Your task to perform on an android device: move a message to another label in the gmail app Image 0: 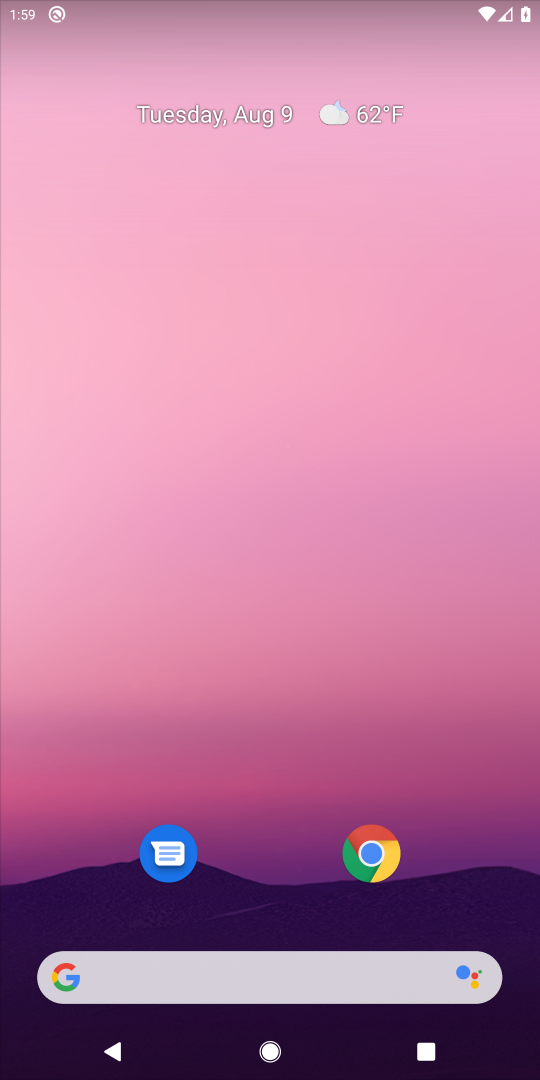
Step 0: press home button
Your task to perform on an android device: move a message to another label in the gmail app Image 1: 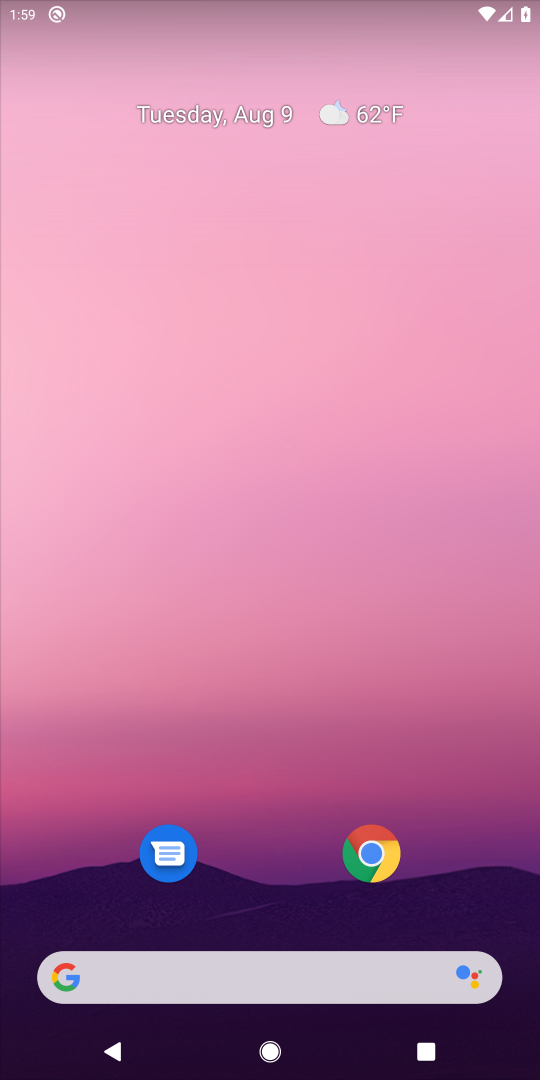
Step 1: drag from (251, 882) to (224, 181)
Your task to perform on an android device: move a message to another label in the gmail app Image 2: 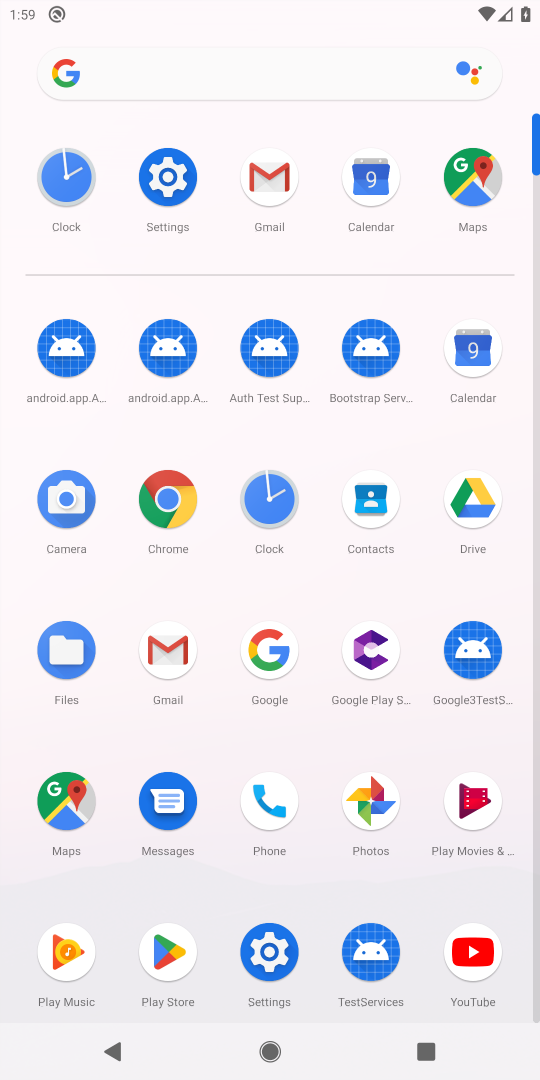
Step 2: click (267, 173)
Your task to perform on an android device: move a message to another label in the gmail app Image 3: 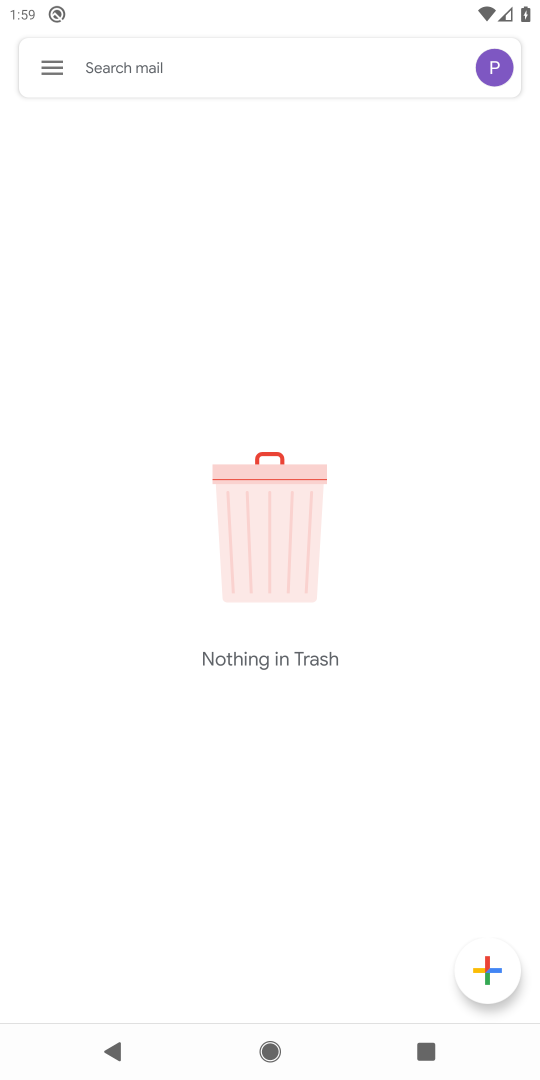
Step 3: click (60, 64)
Your task to perform on an android device: move a message to another label in the gmail app Image 4: 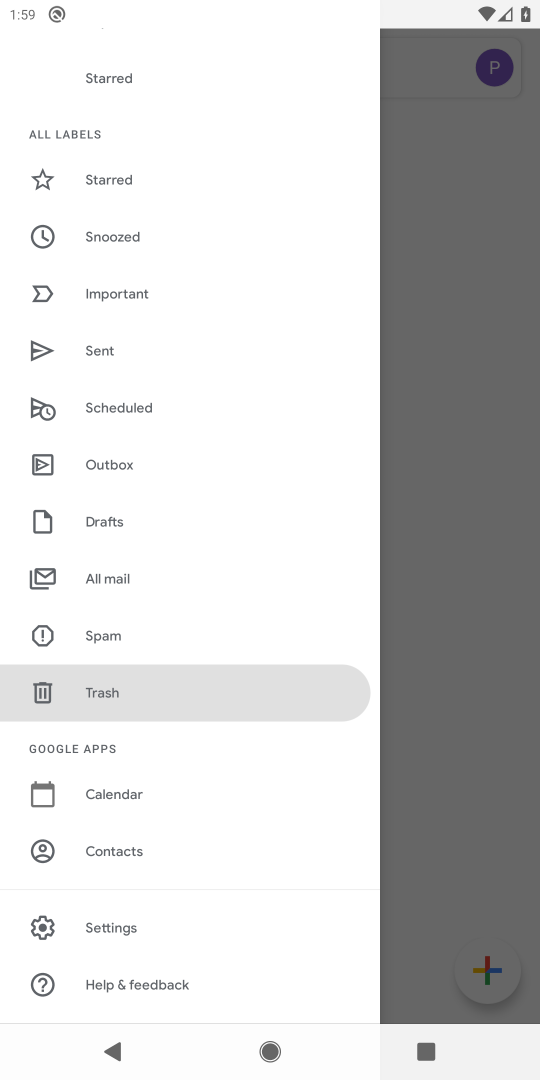
Step 4: click (108, 585)
Your task to perform on an android device: move a message to another label in the gmail app Image 5: 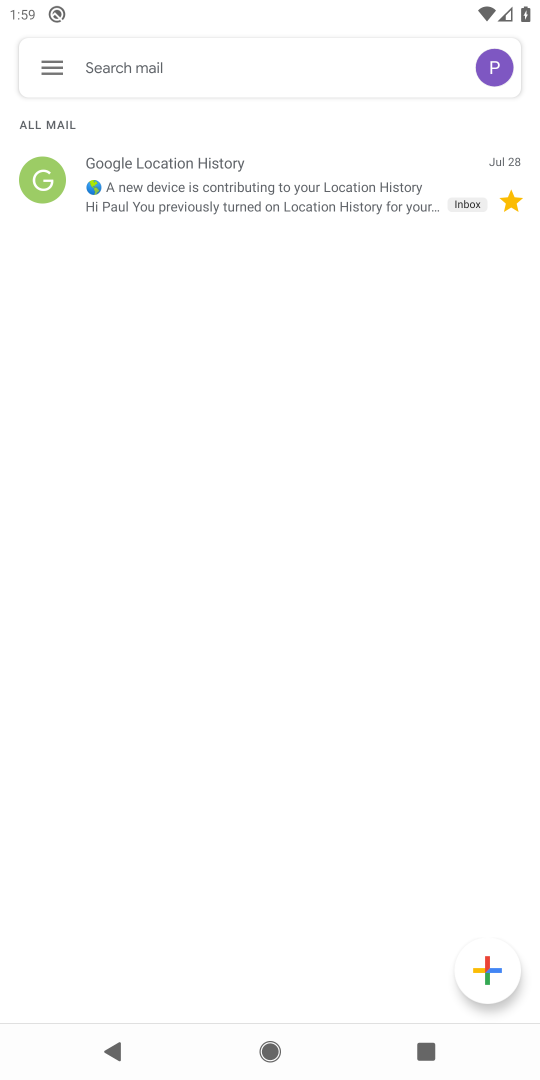
Step 5: click (410, 189)
Your task to perform on an android device: move a message to another label in the gmail app Image 6: 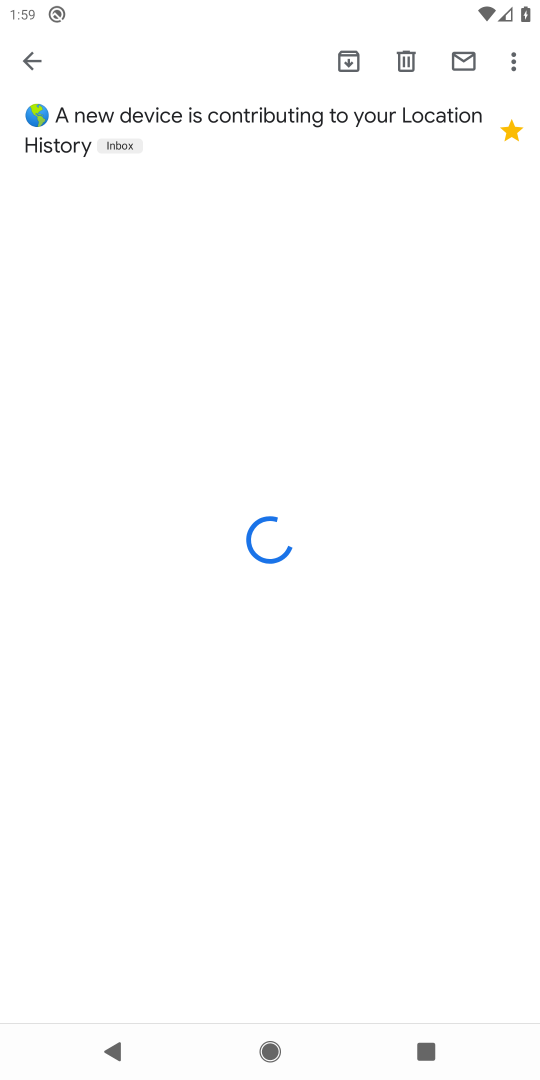
Step 6: click (521, 63)
Your task to perform on an android device: move a message to another label in the gmail app Image 7: 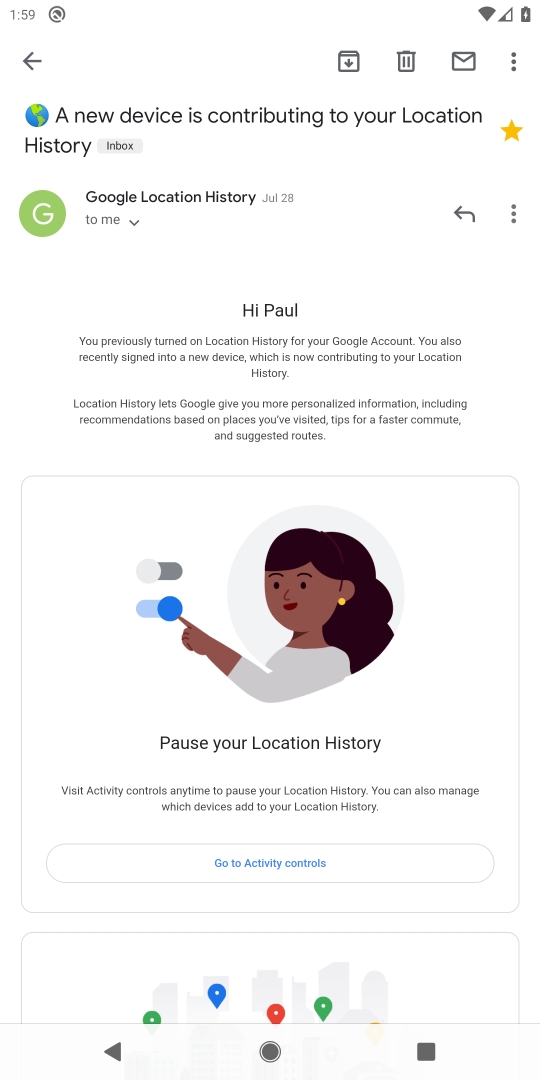
Step 7: click (514, 59)
Your task to perform on an android device: move a message to another label in the gmail app Image 8: 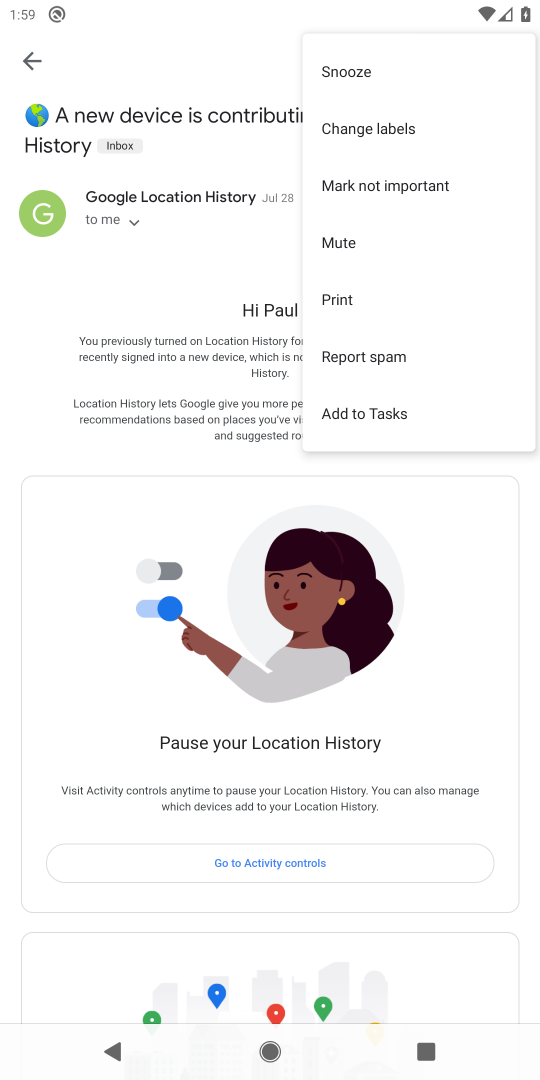
Step 8: click (346, 113)
Your task to perform on an android device: move a message to another label in the gmail app Image 9: 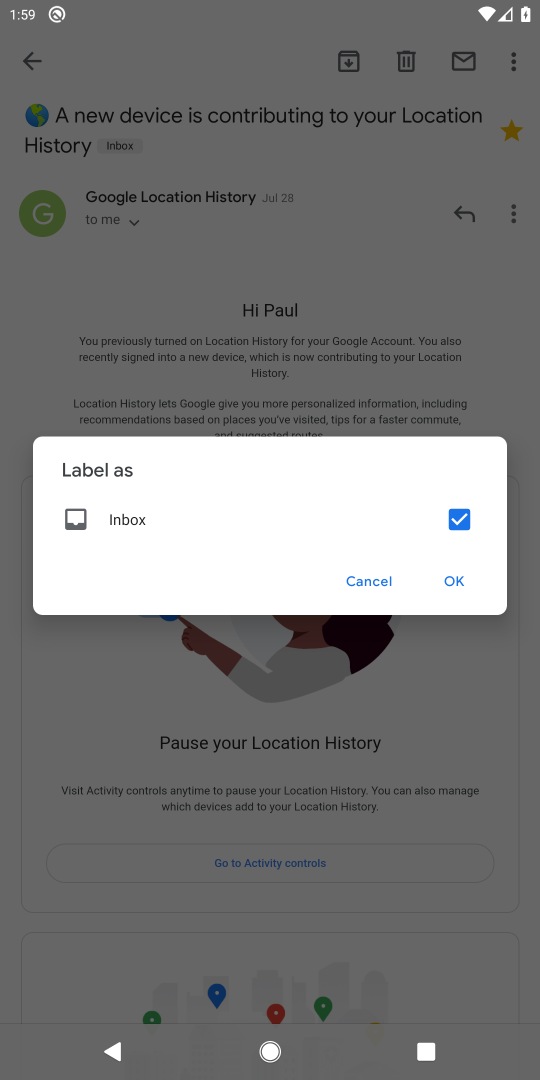
Step 9: click (454, 572)
Your task to perform on an android device: move a message to another label in the gmail app Image 10: 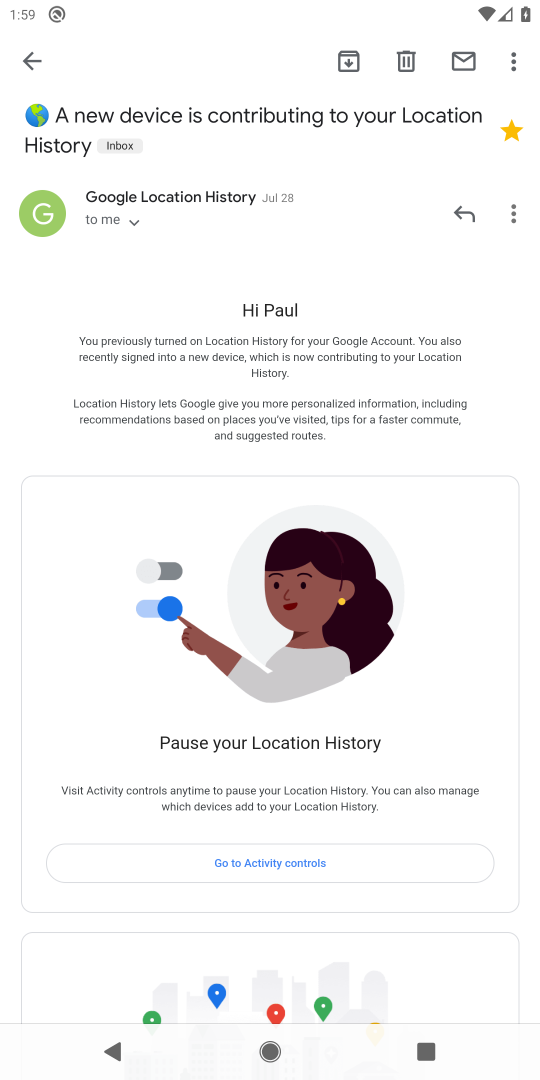
Step 10: task complete